Your task to perform on an android device: change the clock display to analog Image 0: 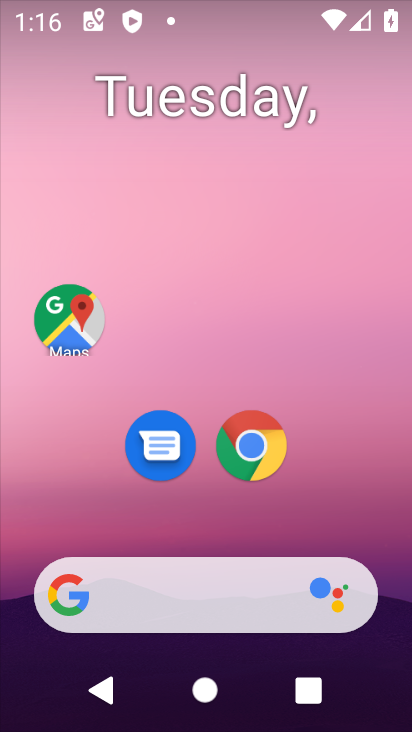
Step 0: drag from (325, 491) to (281, 18)
Your task to perform on an android device: change the clock display to analog Image 1: 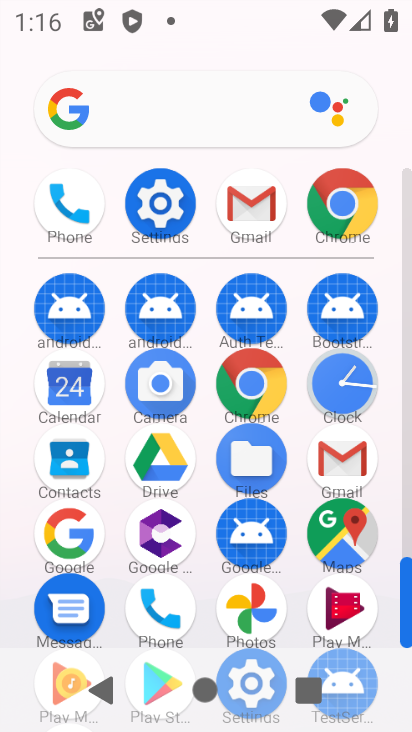
Step 1: click (333, 391)
Your task to perform on an android device: change the clock display to analog Image 2: 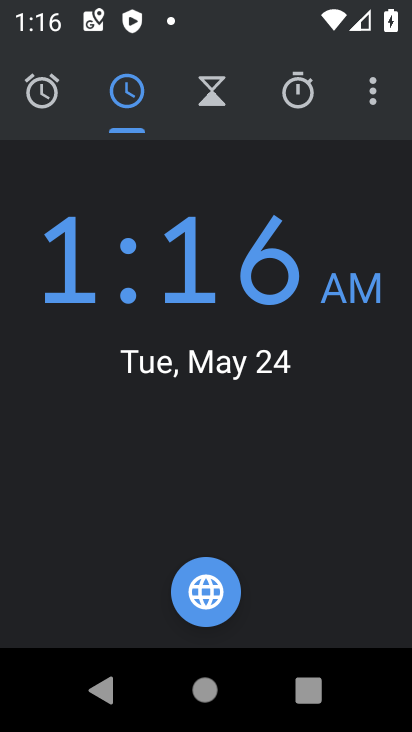
Step 2: click (372, 101)
Your task to perform on an android device: change the clock display to analog Image 3: 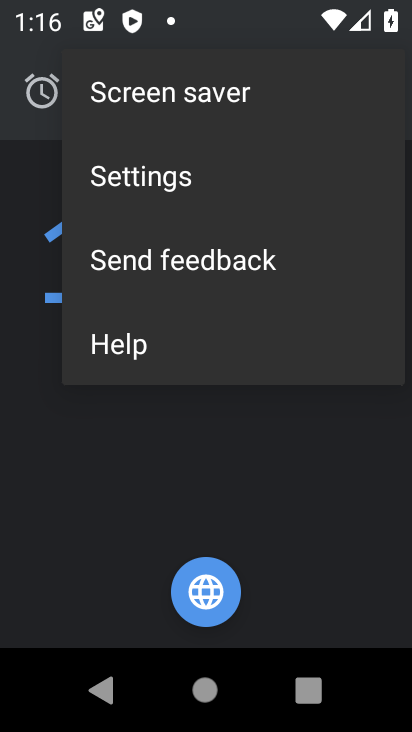
Step 3: click (157, 162)
Your task to perform on an android device: change the clock display to analog Image 4: 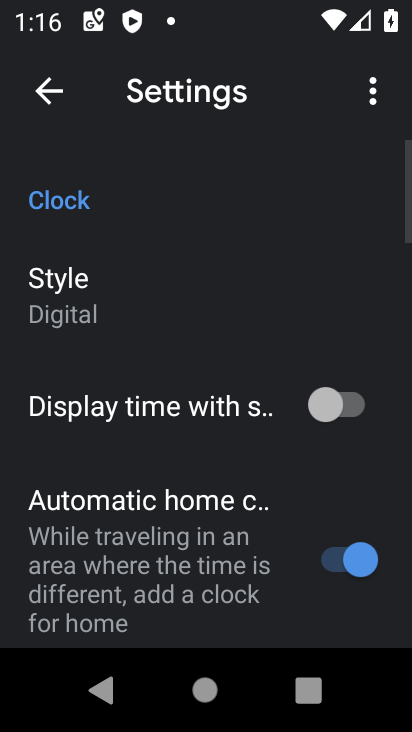
Step 4: click (103, 303)
Your task to perform on an android device: change the clock display to analog Image 5: 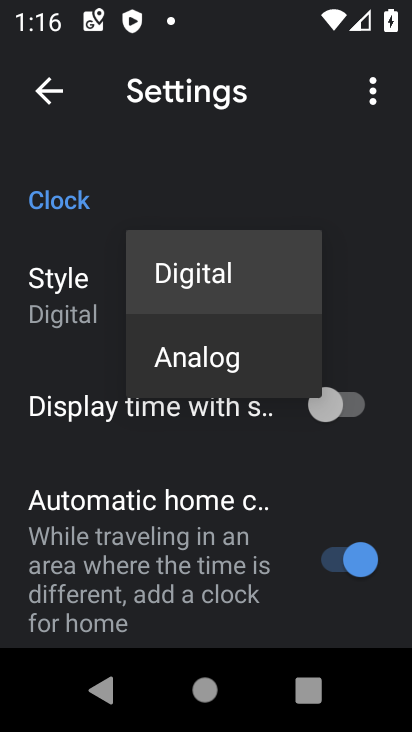
Step 5: click (169, 361)
Your task to perform on an android device: change the clock display to analog Image 6: 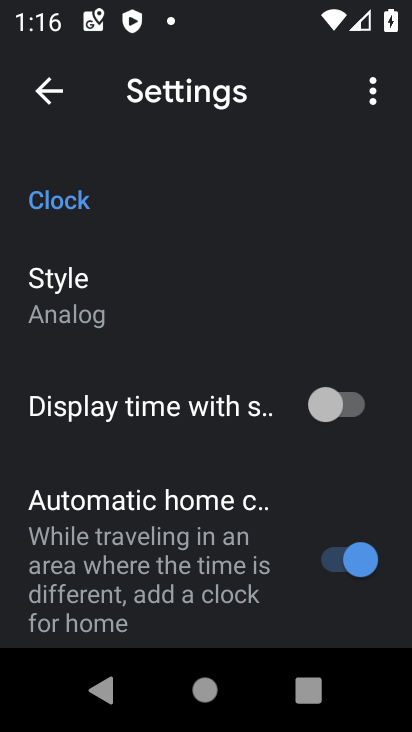
Step 6: task complete